Your task to perform on an android device: turn on wifi Image 0: 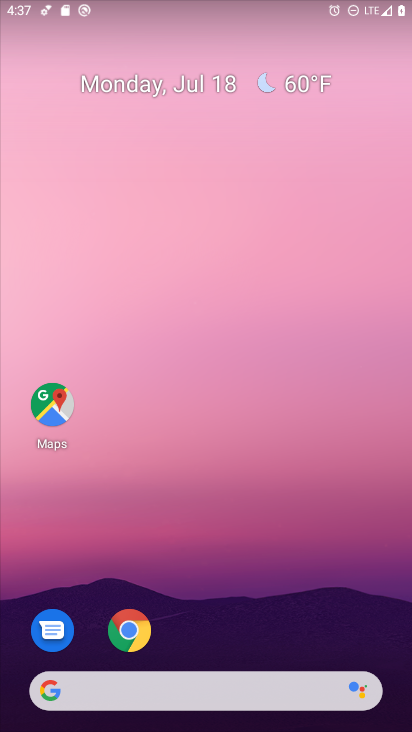
Step 0: drag from (221, 608) to (207, 147)
Your task to perform on an android device: turn on wifi Image 1: 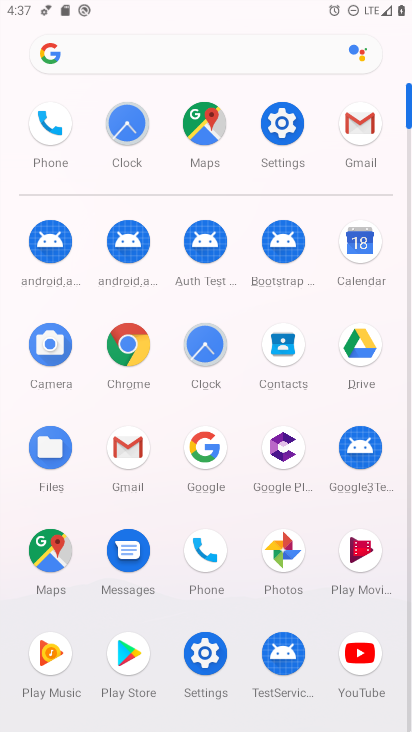
Step 1: click (293, 122)
Your task to perform on an android device: turn on wifi Image 2: 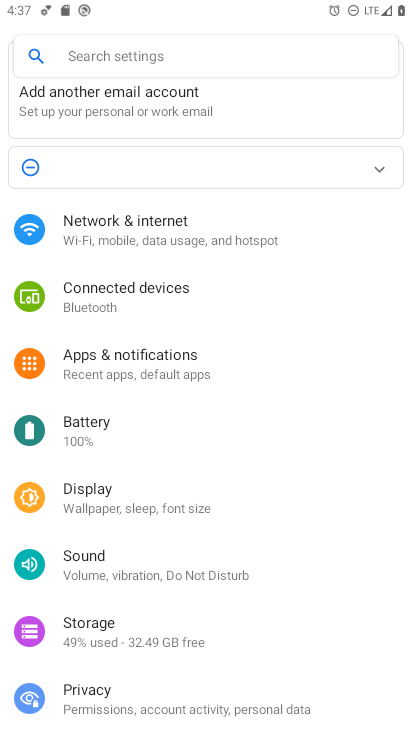
Step 2: click (153, 212)
Your task to perform on an android device: turn on wifi Image 3: 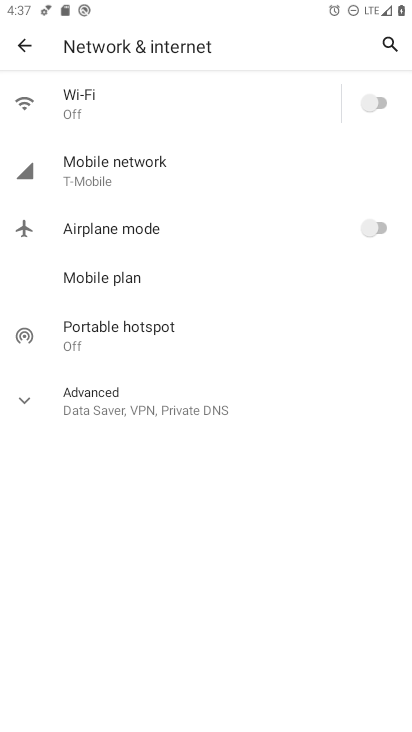
Step 3: click (367, 95)
Your task to perform on an android device: turn on wifi Image 4: 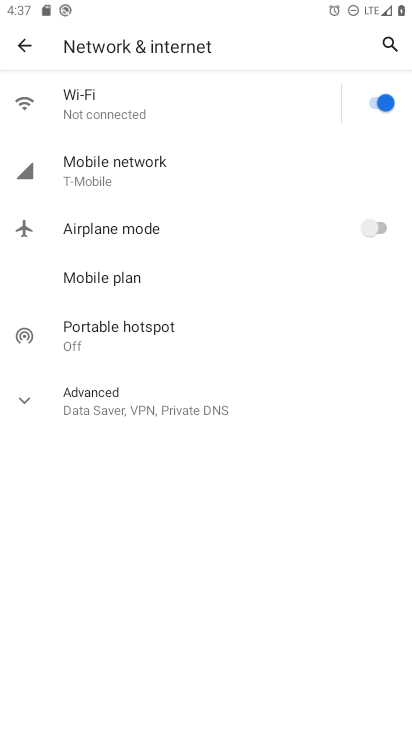
Step 4: task complete